Your task to perform on an android device: Search for Italian restaurants on Maps Image 0: 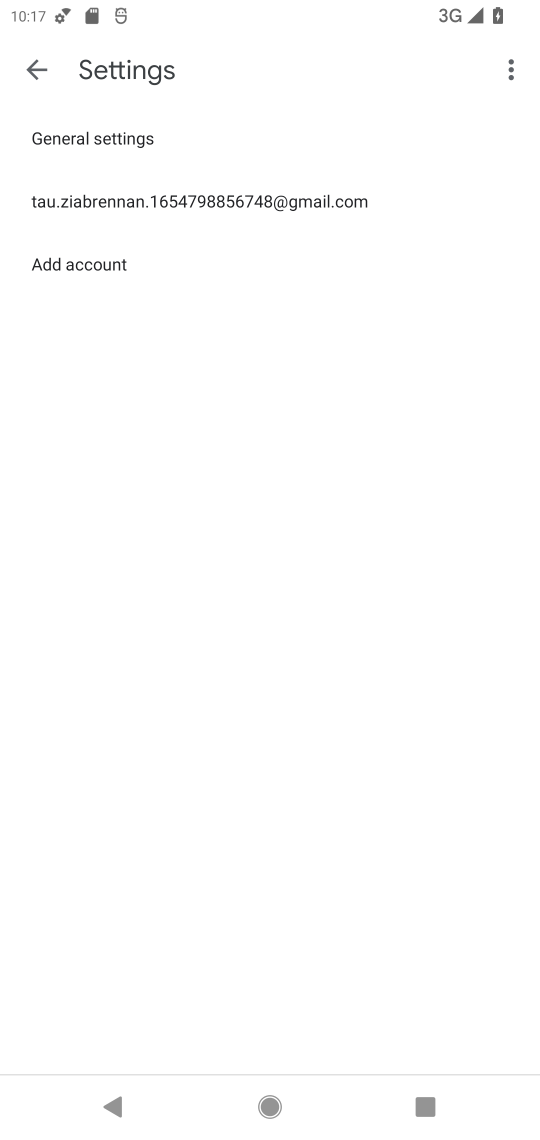
Step 0: press home button
Your task to perform on an android device: Search for Italian restaurants on Maps Image 1: 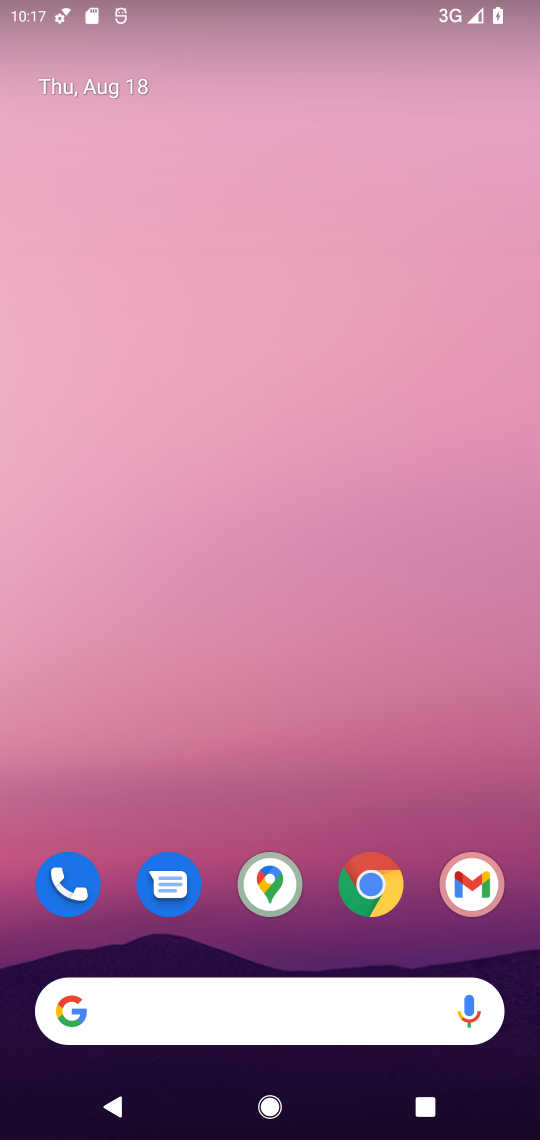
Step 1: click (274, 886)
Your task to perform on an android device: Search for Italian restaurants on Maps Image 2: 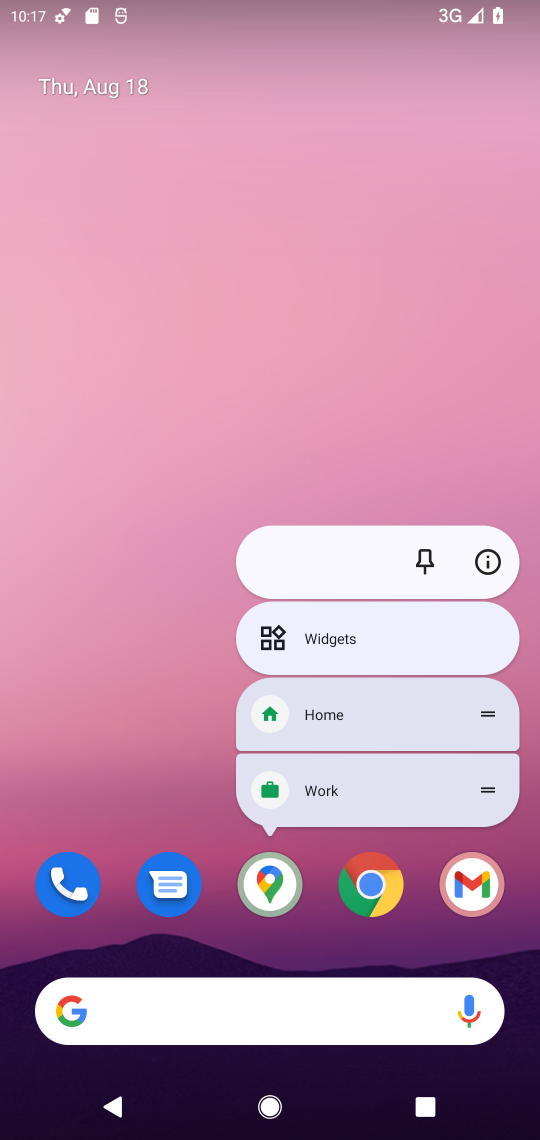
Step 2: click (286, 899)
Your task to perform on an android device: Search for Italian restaurants on Maps Image 3: 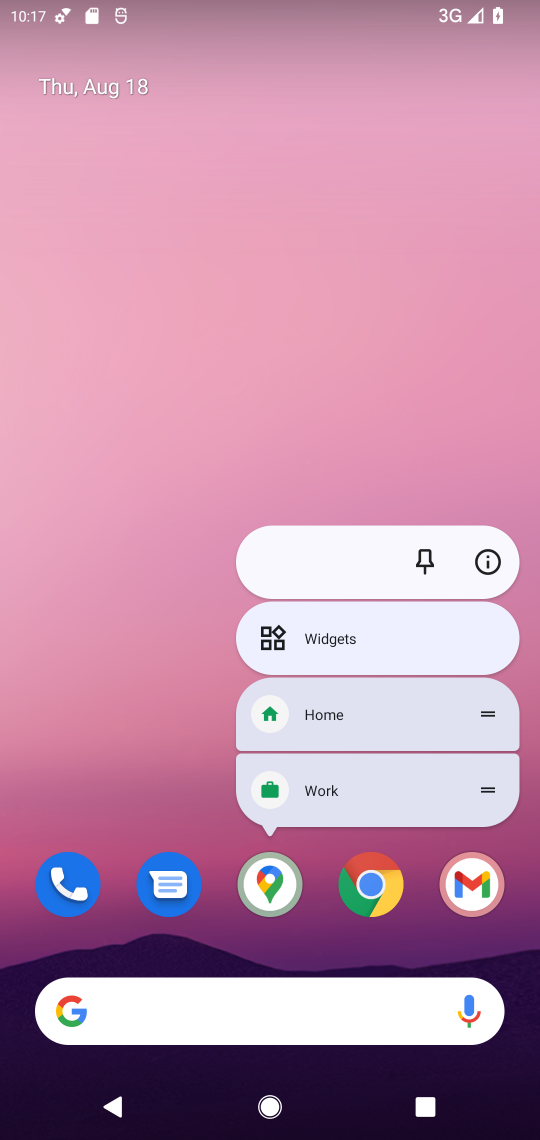
Step 3: click (262, 887)
Your task to perform on an android device: Search for Italian restaurants on Maps Image 4: 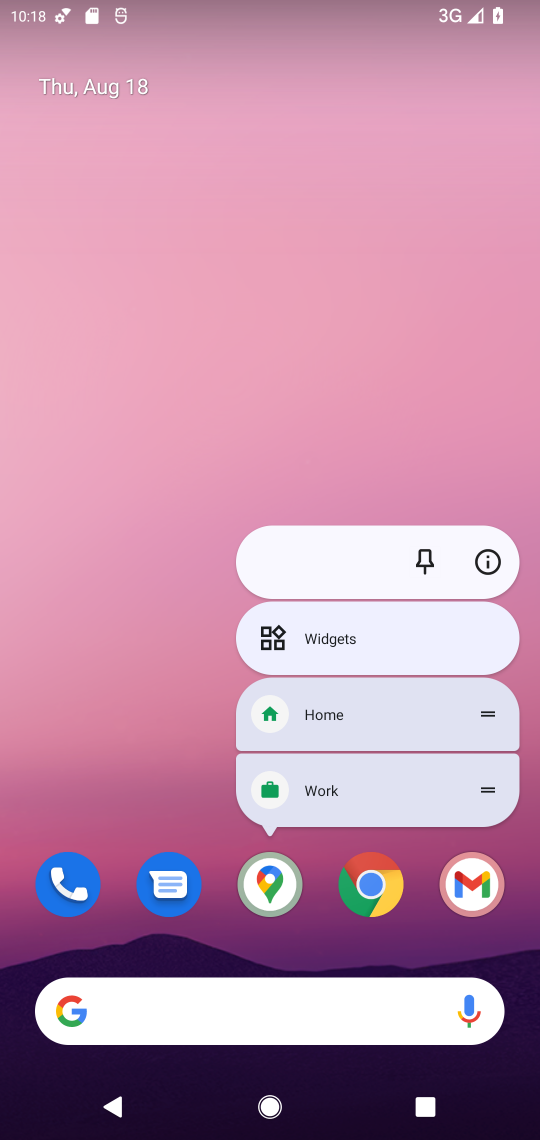
Step 4: click (262, 885)
Your task to perform on an android device: Search for Italian restaurants on Maps Image 5: 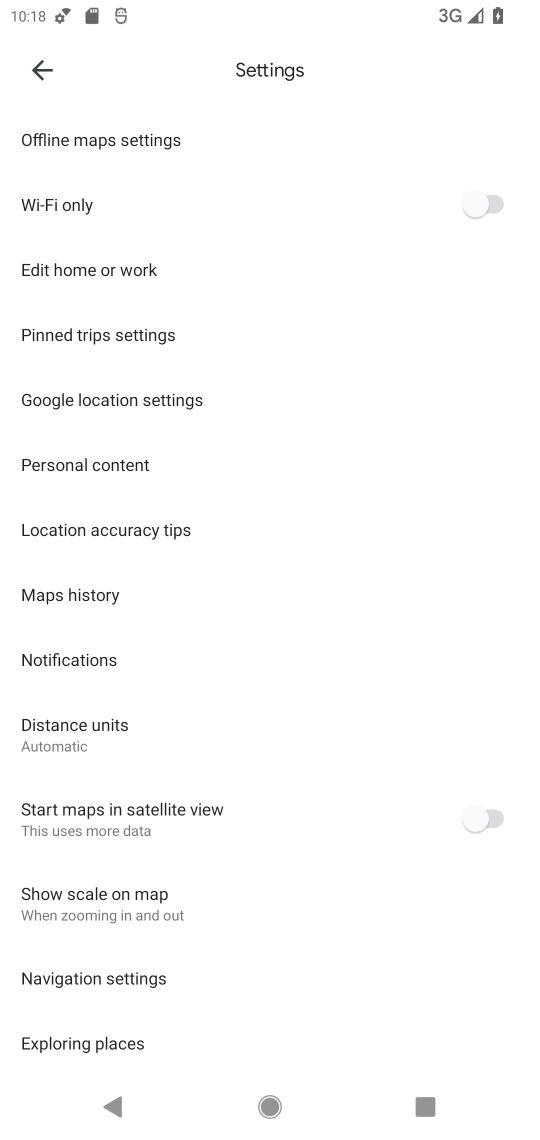
Step 5: click (45, 63)
Your task to perform on an android device: Search for Italian restaurants on Maps Image 6: 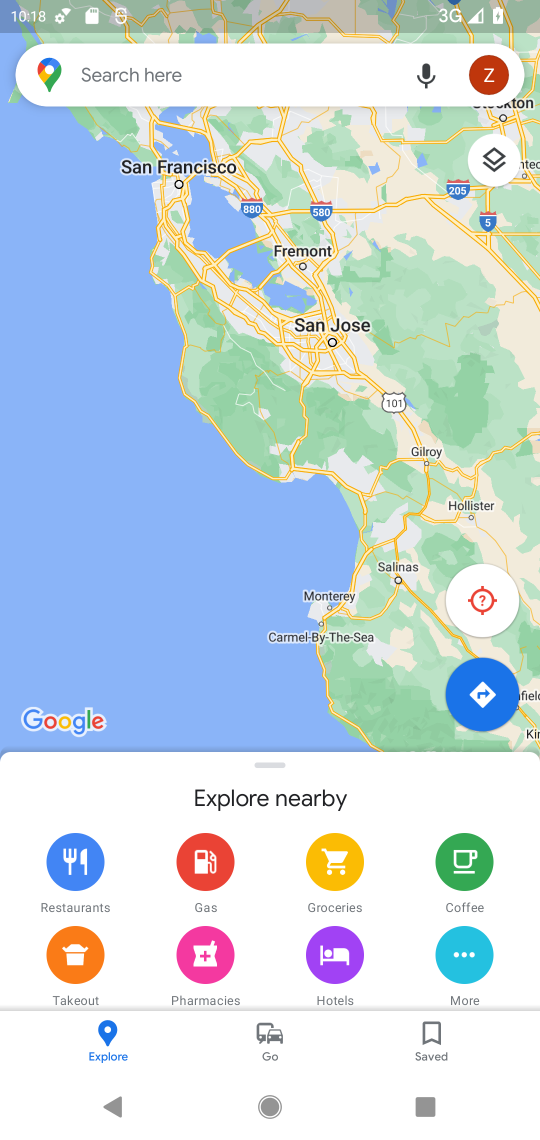
Step 6: click (104, 72)
Your task to perform on an android device: Search for Italian restaurants on Maps Image 7: 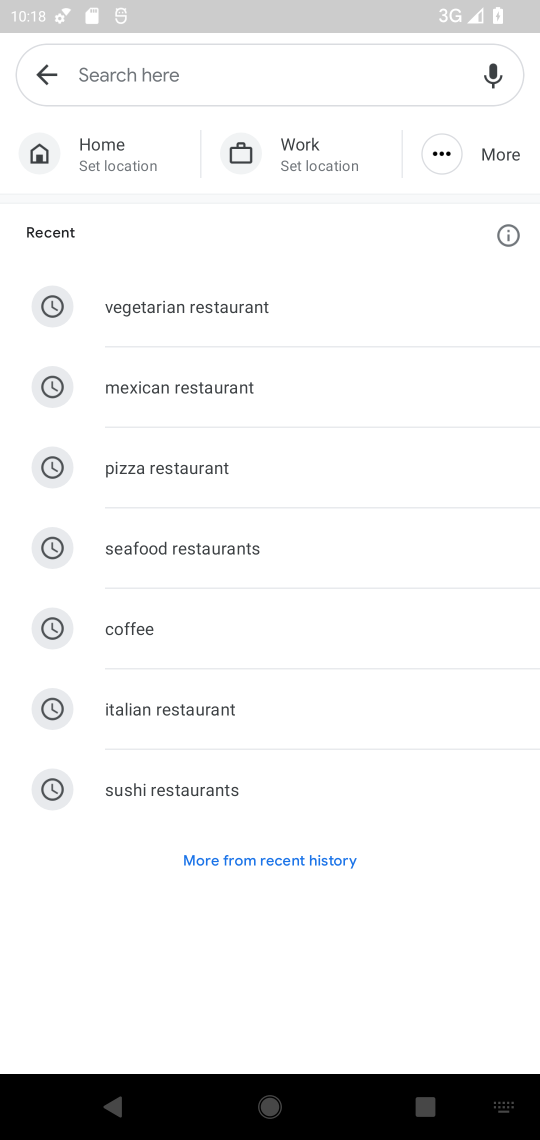
Step 7: click (273, 714)
Your task to perform on an android device: Search for Italian restaurants on Maps Image 8: 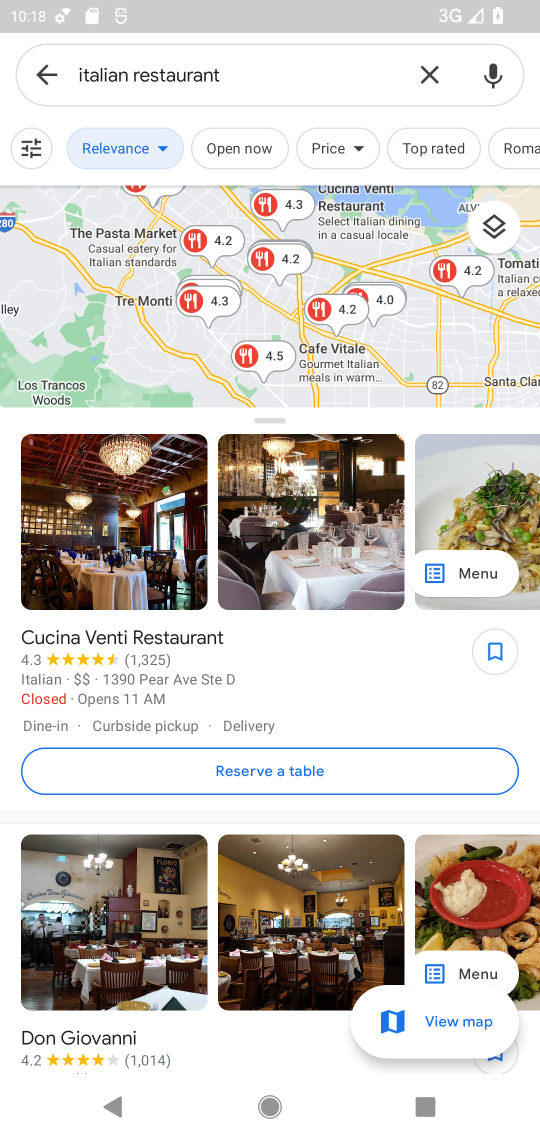
Step 8: task complete